Your task to perform on an android device: create a new album in the google photos Image 0: 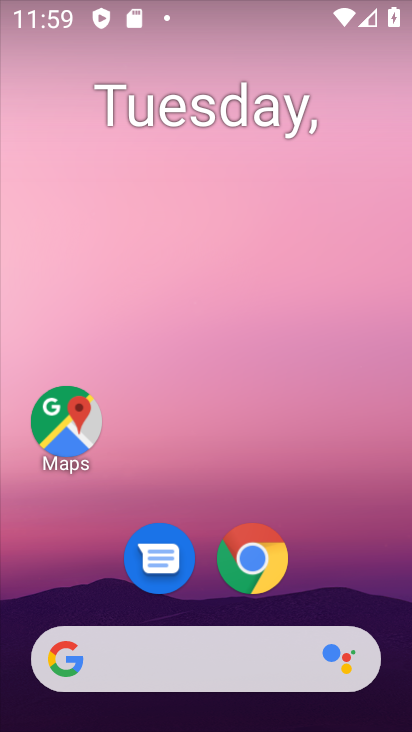
Step 0: drag from (201, 495) to (253, 121)
Your task to perform on an android device: create a new album in the google photos Image 1: 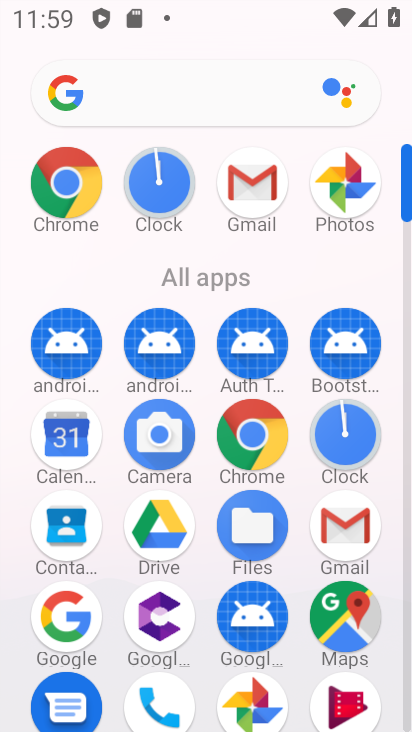
Step 1: drag from (252, 514) to (309, 172)
Your task to perform on an android device: create a new album in the google photos Image 2: 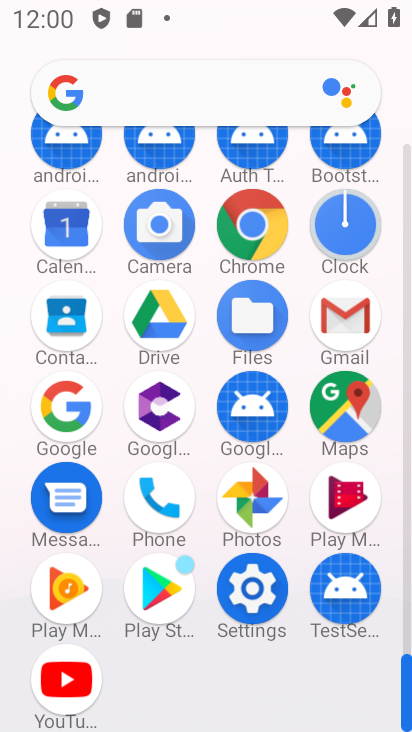
Step 2: click (258, 518)
Your task to perform on an android device: create a new album in the google photos Image 3: 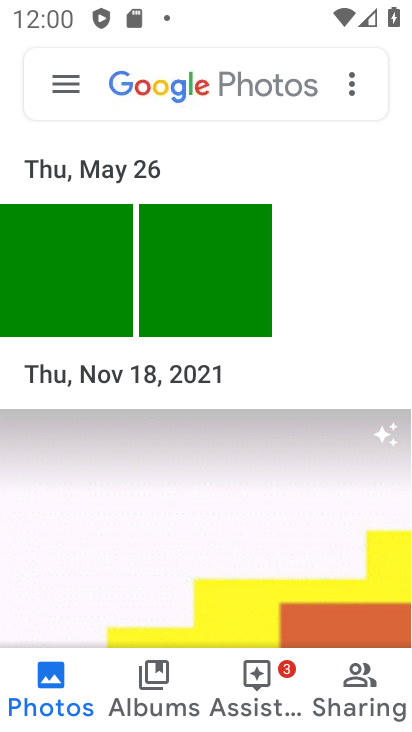
Step 3: click (171, 695)
Your task to perform on an android device: create a new album in the google photos Image 4: 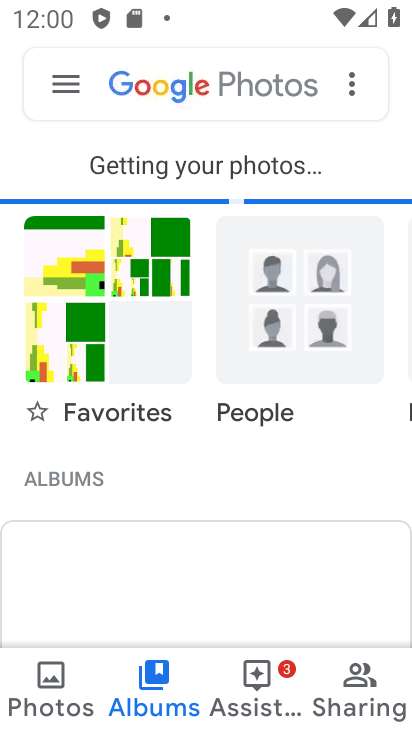
Step 4: drag from (135, 571) to (64, 206)
Your task to perform on an android device: create a new album in the google photos Image 5: 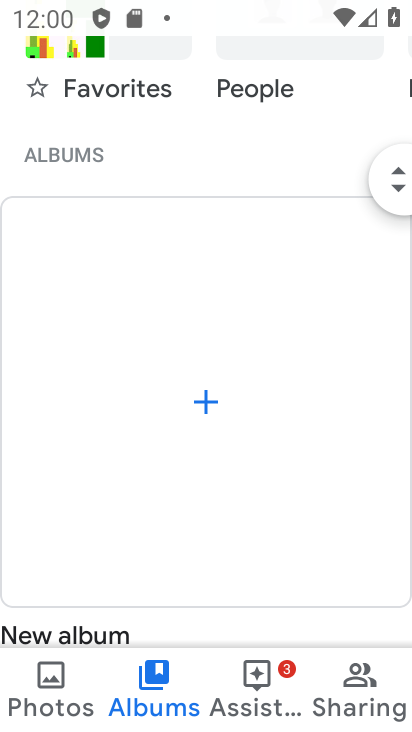
Step 5: click (212, 416)
Your task to perform on an android device: create a new album in the google photos Image 6: 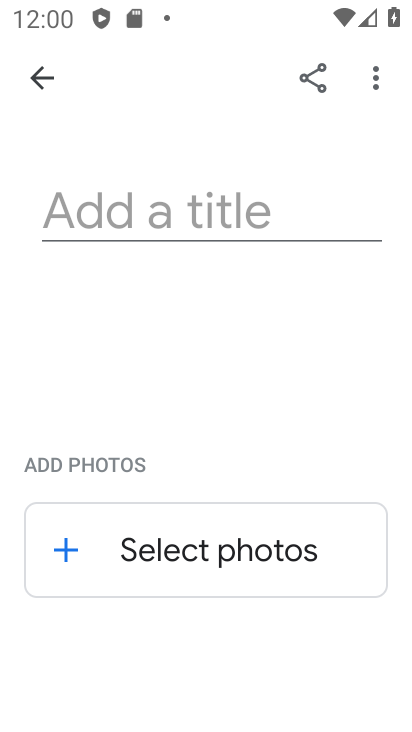
Step 6: click (187, 211)
Your task to perform on an android device: create a new album in the google photos Image 7: 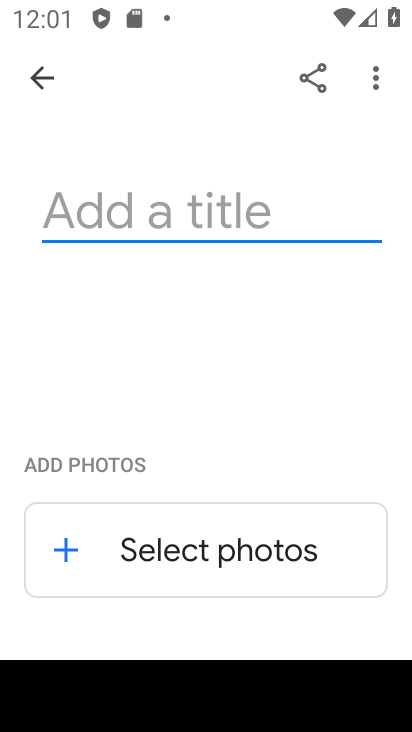
Step 7: type "jhfj"
Your task to perform on an android device: create a new album in the google photos Image 8: 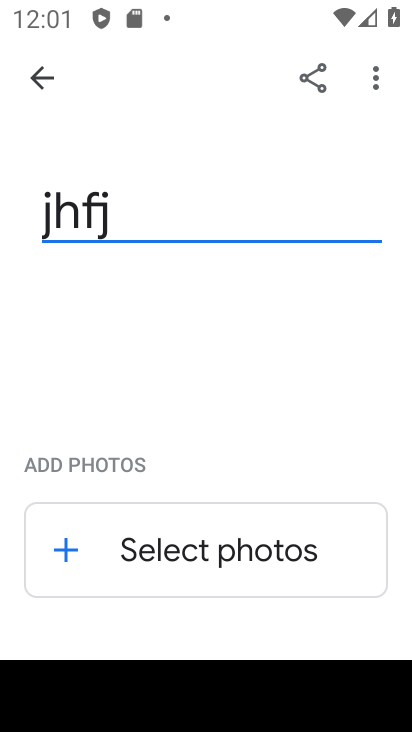
Step 8: click (63, 556)
Your task to perform on an android device: create a new album in the google photos Image 9: 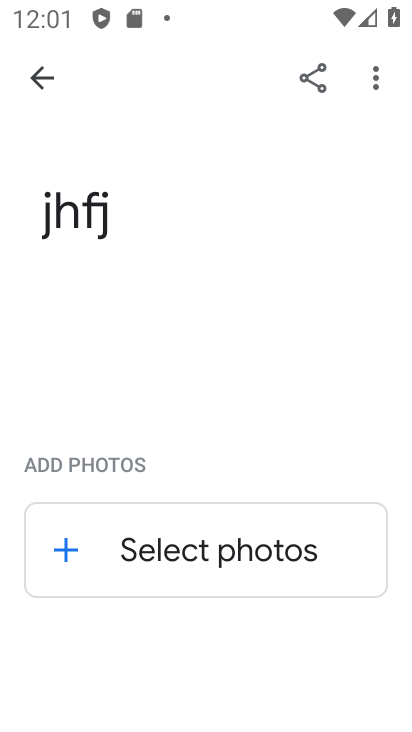
Step 9: click (56, 559)
Your task to perform on an android device: create a new album in the google photos Image 10: 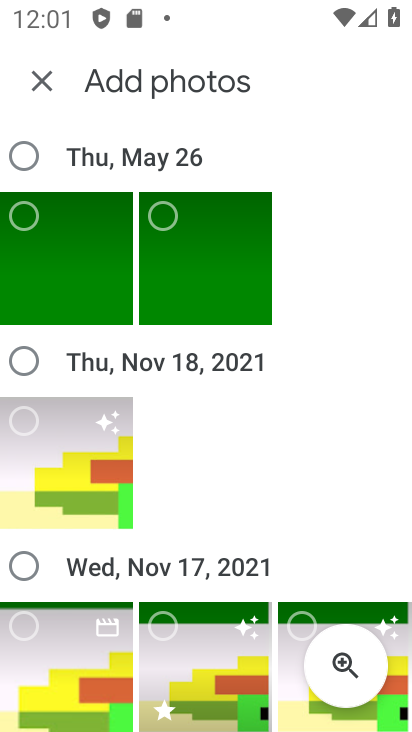
Step 10: click (33, 222)
Your task to perform on an android device: create a new album in the google photos Image 11: 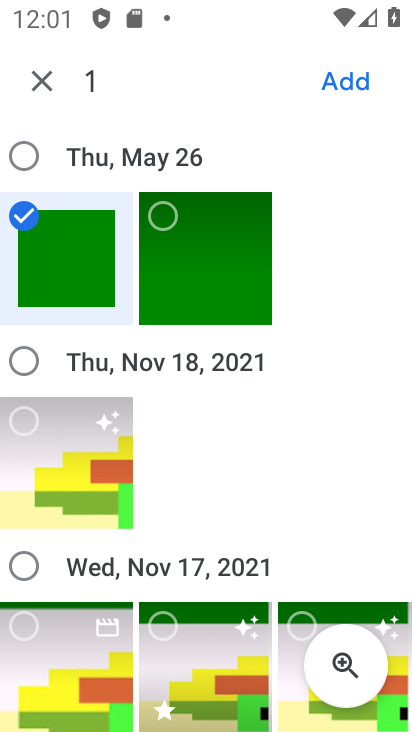
Step 11: click (171, 222)
Your task to perform on an android device: create a new album in the google photos Image 12: 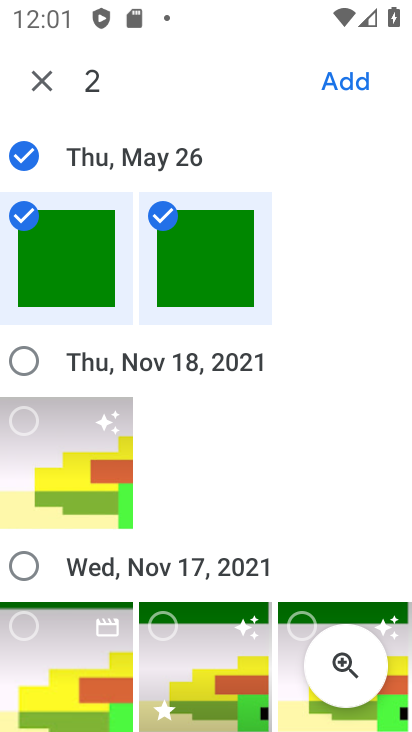
Step 12: click (362, 84)
Your task to perform on an android device: create a new album in the google photos Image 13: 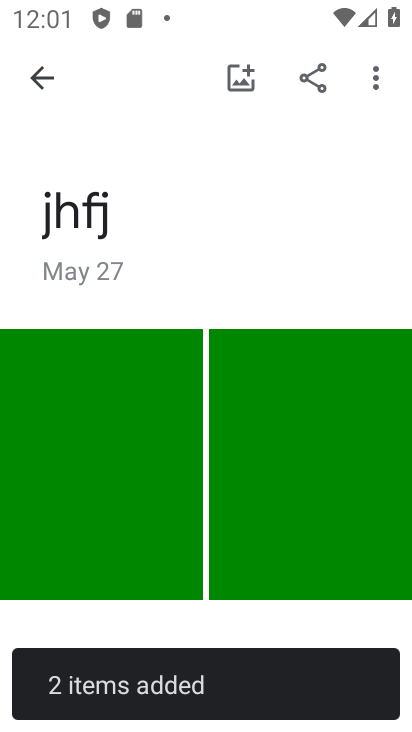
Step 13: task complete